Your task to perform on an android device: check google app version Image 0: 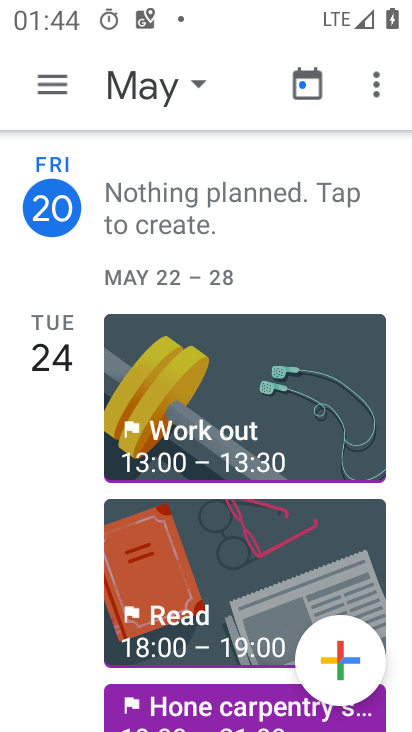
Step 0: press home button
Your task to perform on an android device: check google app version Image 1: 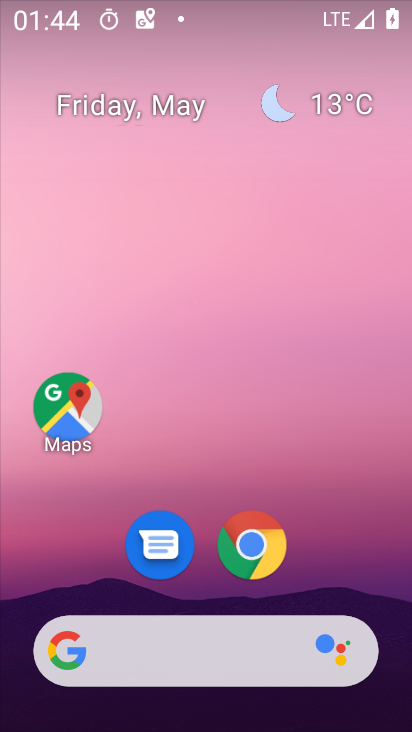
Step 1: drag from (293, 535) to (270, 85)
Your task to perform on an android device: check google app version Image 2: 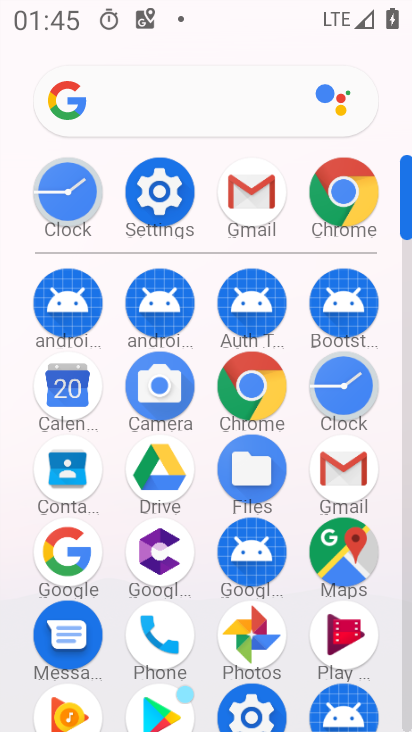
Step 2: click (67, 546)
Your task to perform on an android device: check google app version Image 3: 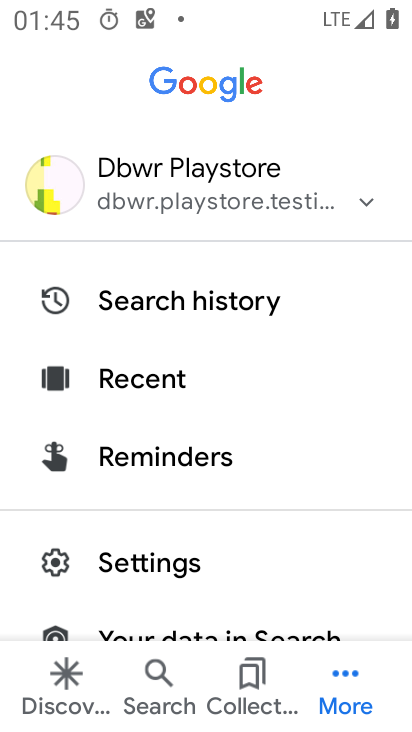
Step 3: click (173, 571)
Your task to perform on an android device: check google app version Image 4: 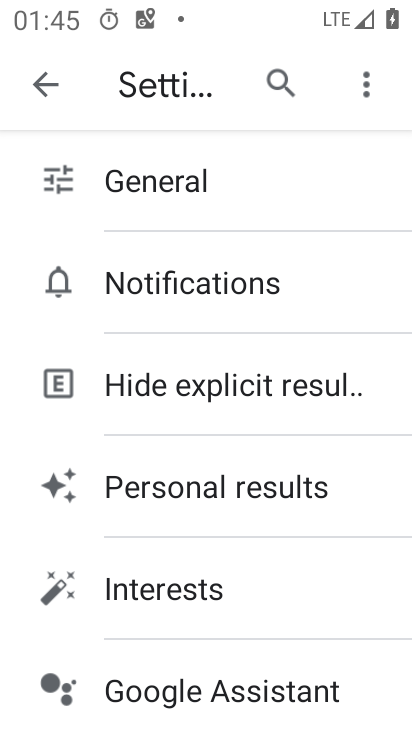
Step 4: drag from (184, 644) to (311, 268)
Your task to perform on an android device: check google app version Image 5: 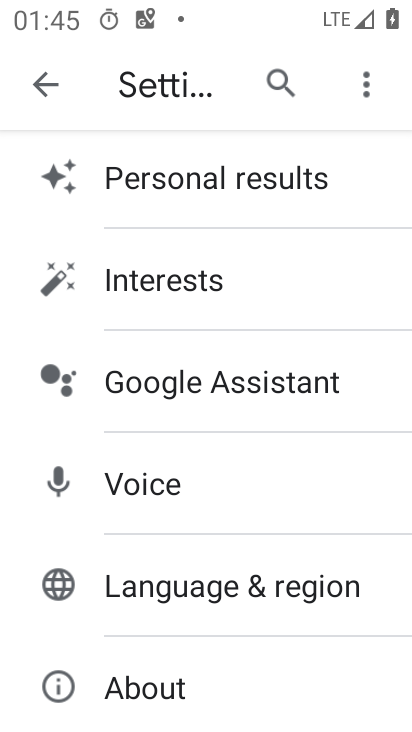
Step 5: drag from (185, 622) to (175, 366)
Your task to perform on an android device: check google app version Image 6: 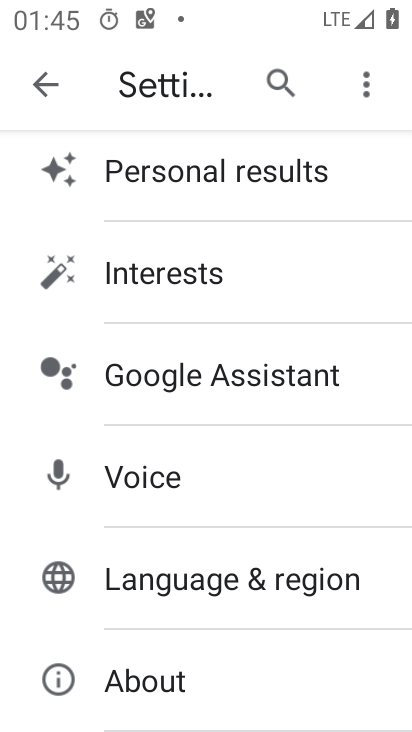
Step 6: click (153, 693)
Your task to perform on an android device: check google app version Image 7: 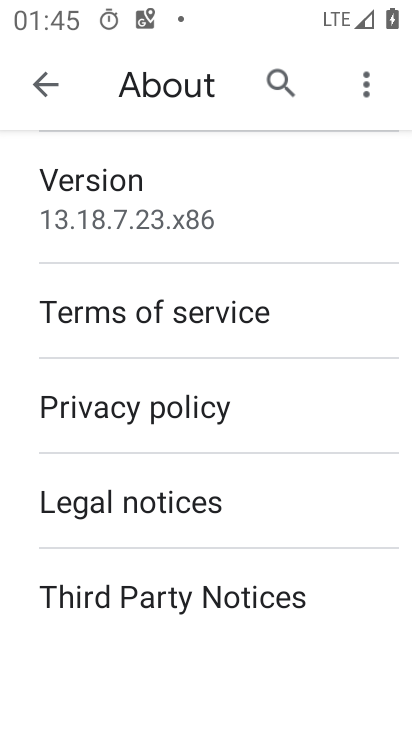
Step 7: task complete